Your task to perform on an android device: check android version Image 0: 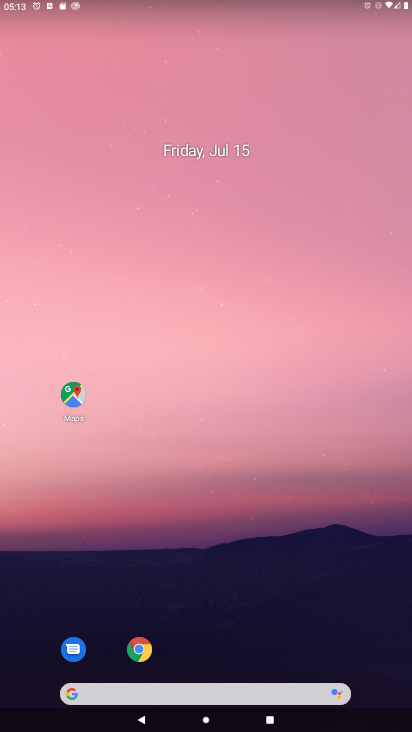
Step 0: drag from (373, 670) to (361, 138)
Your task to perform on an android device: check android version Image 1: 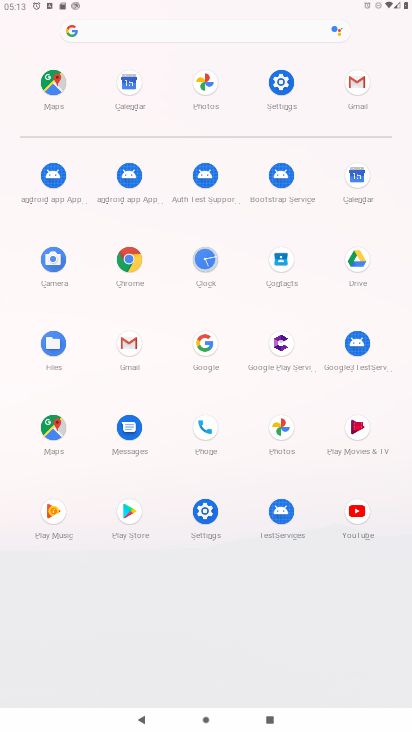
Step 1: click (204, 511)
Your task to perform on an android device: check android version Image 2: 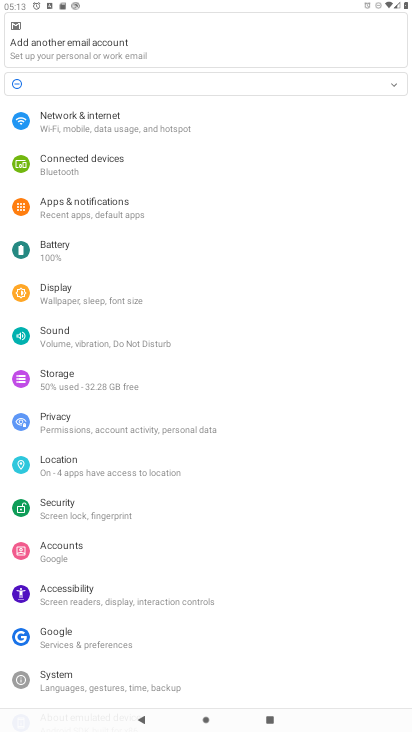
Step 2: drag from (298, 660) to (259, 241)
Your task to perform on an android device: check android version Image 3: 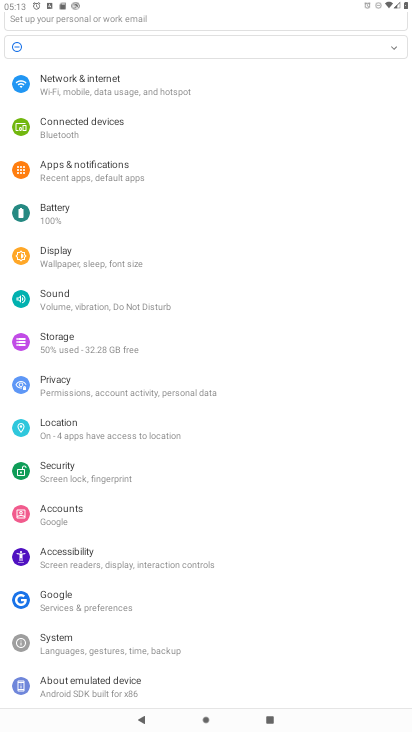
Step 3: click (56, 683)
Your task to perform on an android device: check android version Image 4: 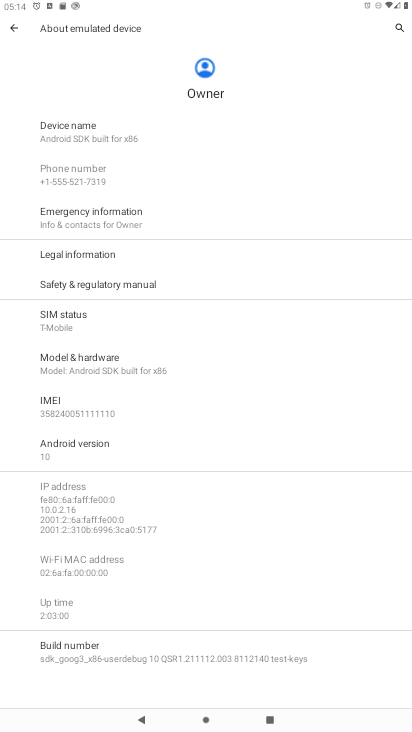
Step 4: click (76, 441)
Your task to perform on an android device: check android version Image 5: 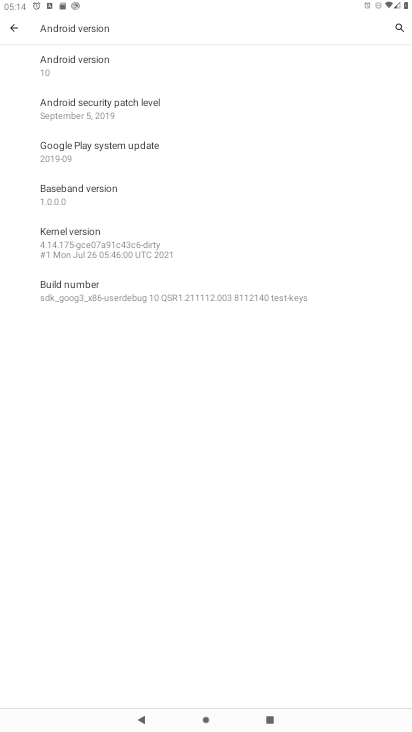
Step 5: click (88, 53)
Your task to perform on an android device: check android version Image 6: 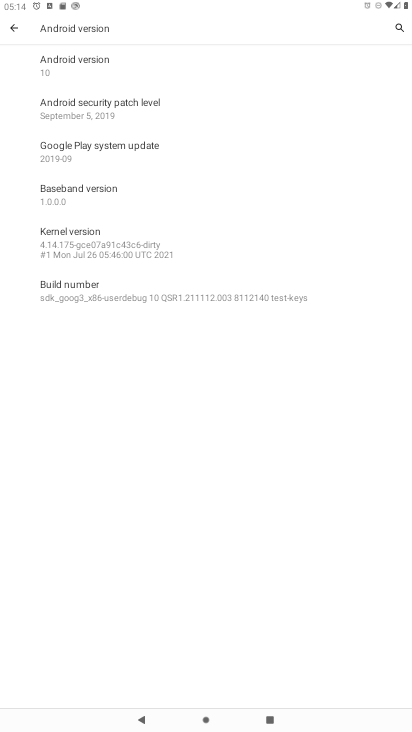
Step 6: task complete